Your task to perform on an android device: turn on airplane mode Image 0: 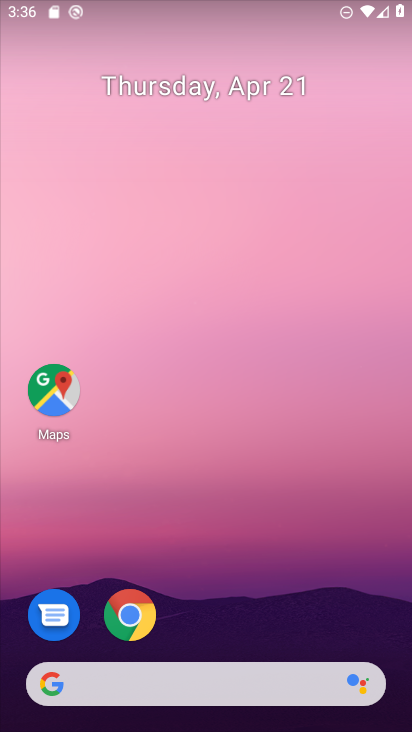
Step 0: drag from (214, 601) to (347, 139)
Your task to perform on an android device: turn on airplane mode Image 1: 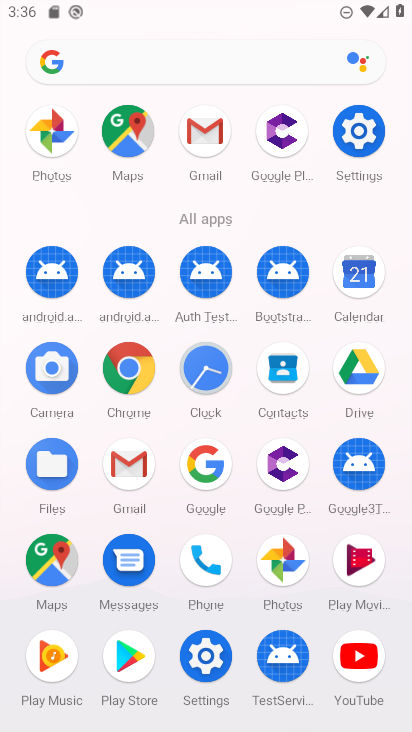
Step 1: click (210, 661)
Your task to perform on an android device: turn on airplane mode Image 2: 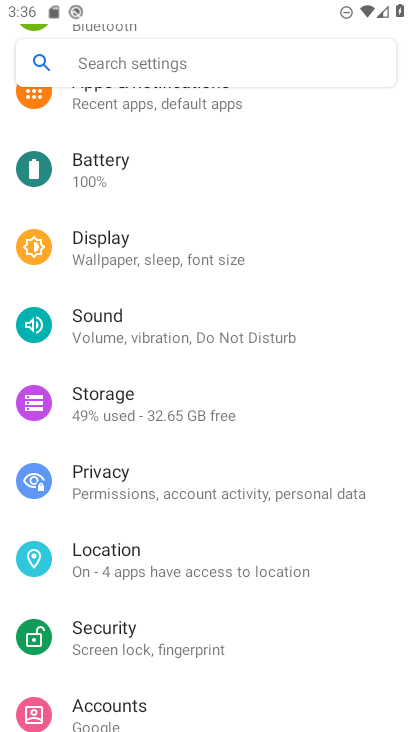
Step 2: drag from (259, 212) to (216, 543)
Your task to perform on an android device: turn on airplane mode Image 3: 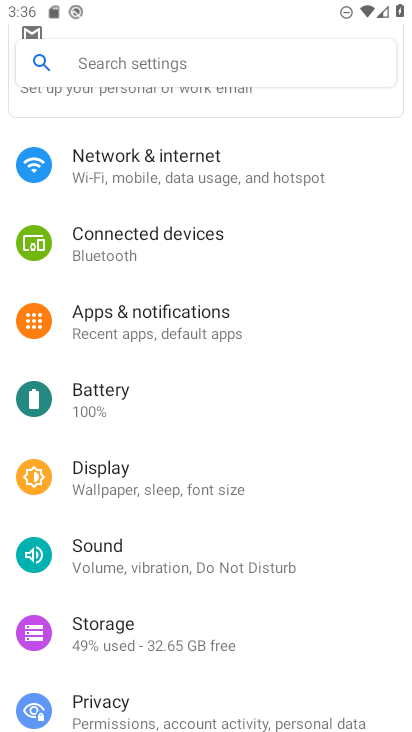
Step 3: click (239, 177)
Your task to perform on an android device: turn on airplane mode Image 4: 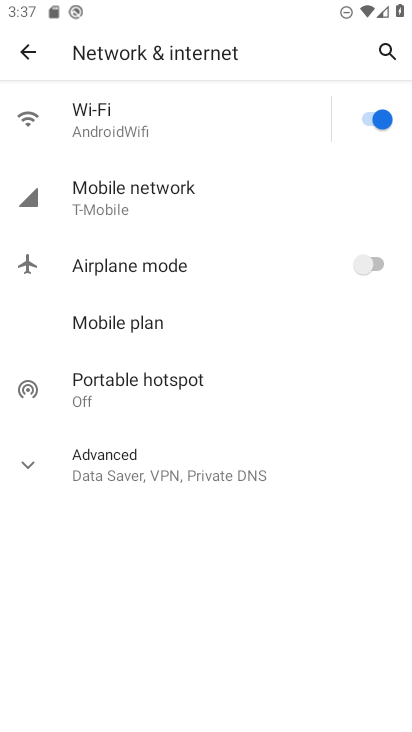
Step 4: click (391, 265)
Your task to perform on an android device: turn on airplane mode Image 5: 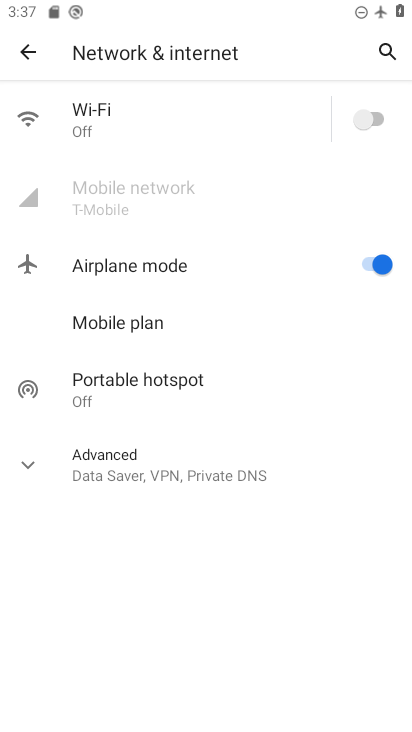
Step 5: task complete